Your task to perform on an android device: Open the stopwatch Image 0: 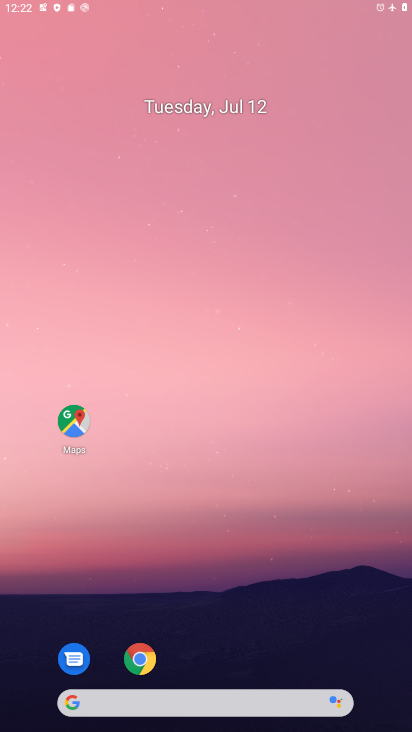
Step 0: press home button
Your task to perform on an android device: Open the stopwatch Image 1: 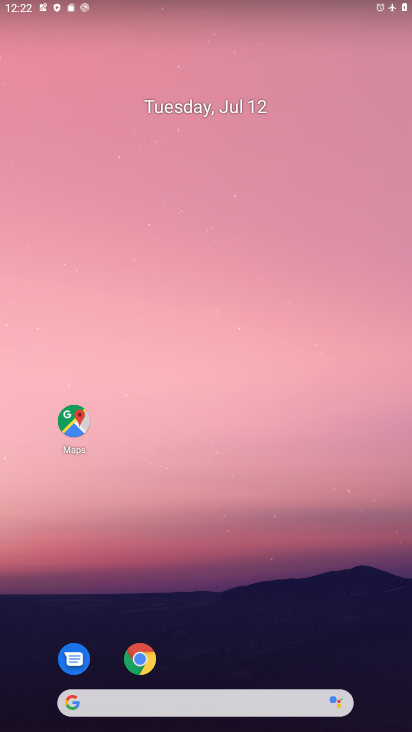
Step 1: drag from (208, 591) to (234, 118)
Your task to perform on an android device: Open the stopwatch Image 2: 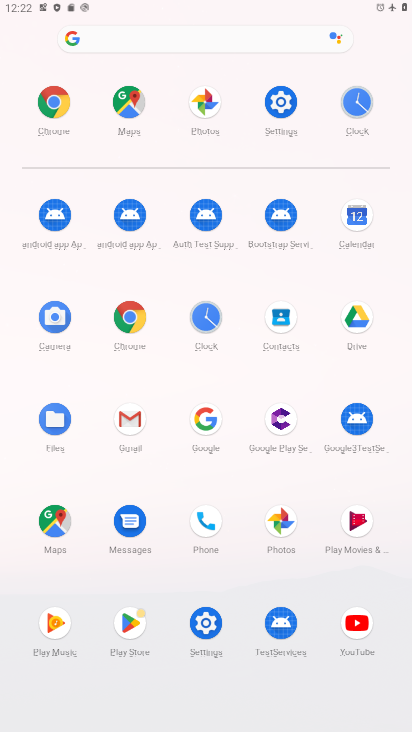
Step 2: click (196, 322)
Your task to perform on an android device: Open the stopwatch Image 3: 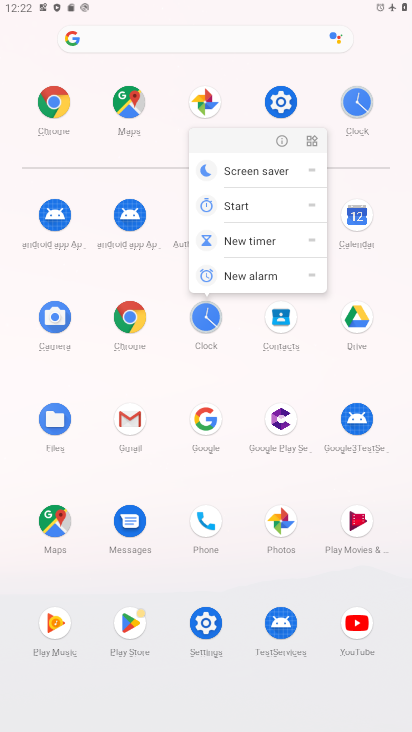
Step 3: click (278, 138)
Your task to perform on an android device: Open the stopwatch Image 4: 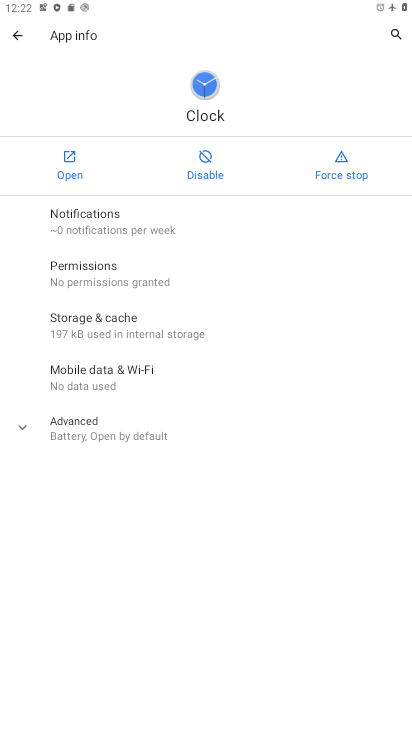
Step 4: click (73, 167)
Your task to perform on an android device: Open the stopwatch Image 5: 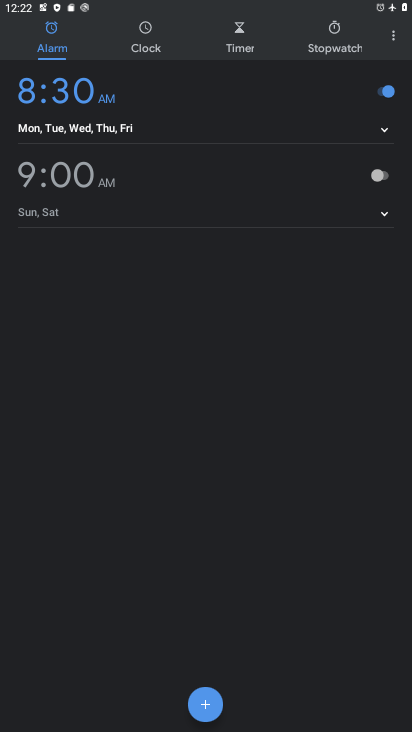
Step 5: click (332, 42)
Your task to perform on an android device: Open the stopwatch Image 6: 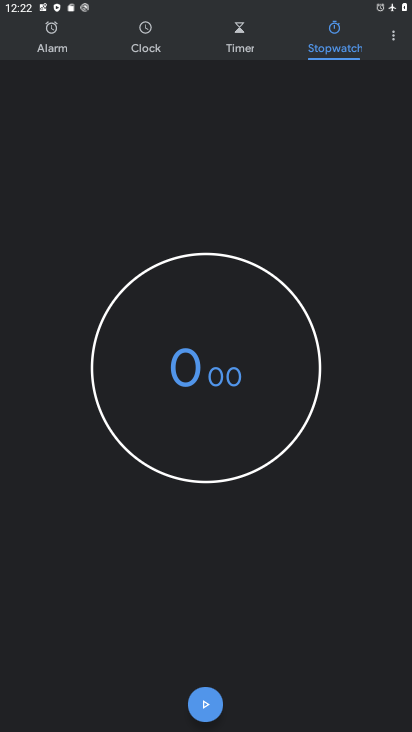
Step 6: click (210, 696)
Your task to perform on an android device: Open the stopwatch Image 7: 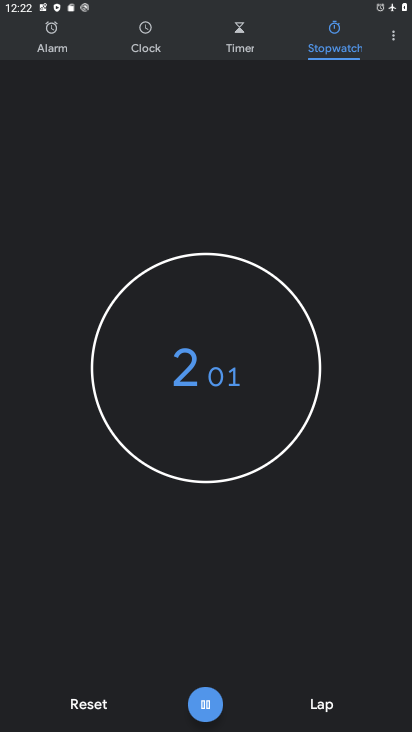
Step 7: task complete